Your task to perform on an android device: Search for Mexican restaurants on Maps Image 0: 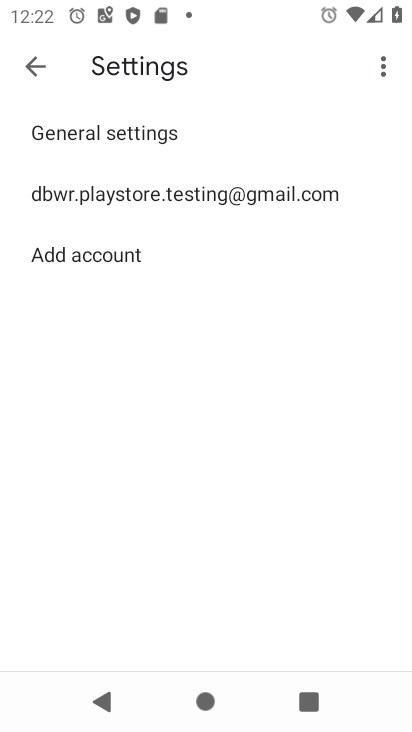
Step 0: press home button
Your task to perform on an android device: Search for Mexican restaurants on Maps Image 1: 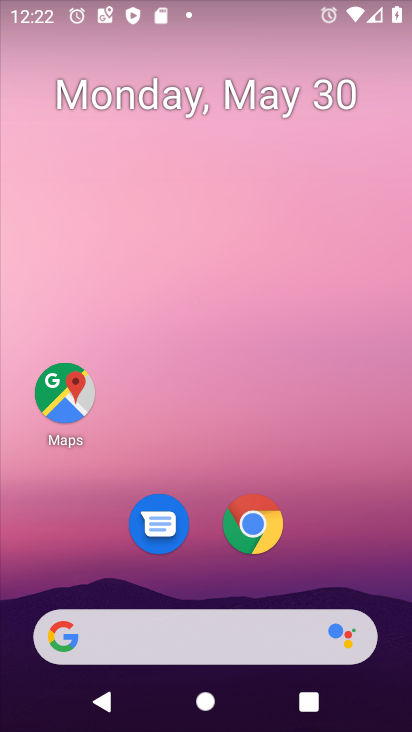
Step 1: click (69, 391)
Your task to perform on an android device: Search for Mexican restaurants on Maps Image 2: 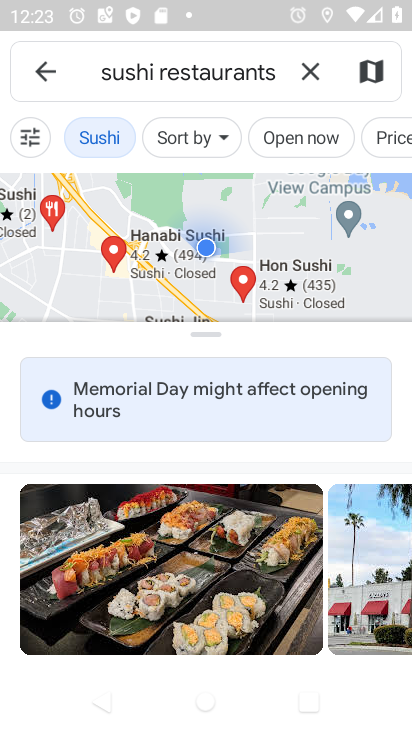
Step 2: click (306, 71)
Your task to perform on an android device: Search for Mexican restaurants on Maps Image 3: 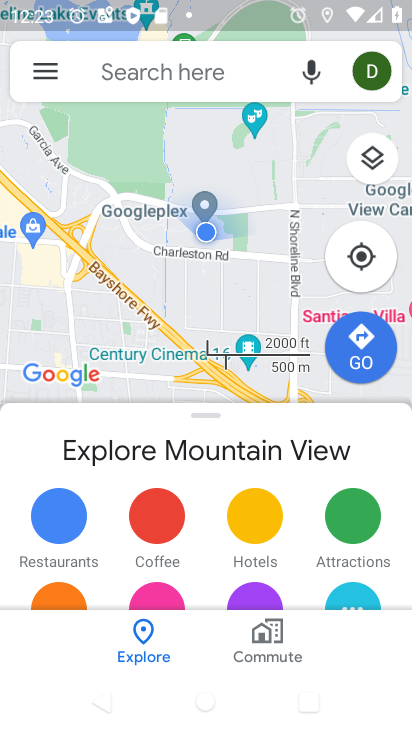
Step 3: click (223, 65)
Your task to perform on an android device: Search for Mexican restaurants on Maps Image 4: 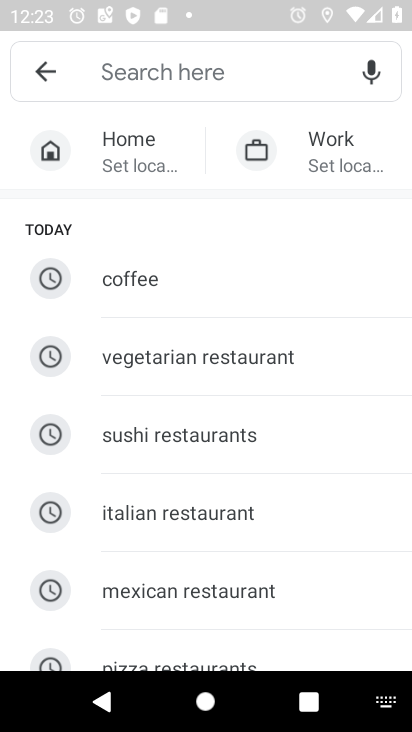
Step 4: click (186, 577)
Your task to perform on an android device: Search for Mexican restaurants on Maps Image 5: 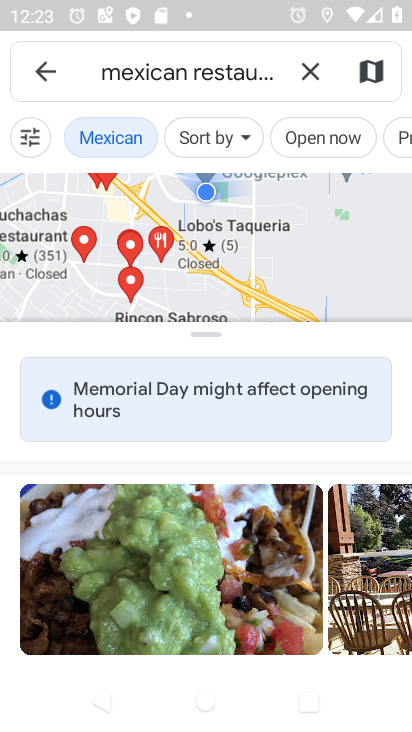
Step 5: task complete